Your task to perform on an android device: turn notification dots off Image 0: 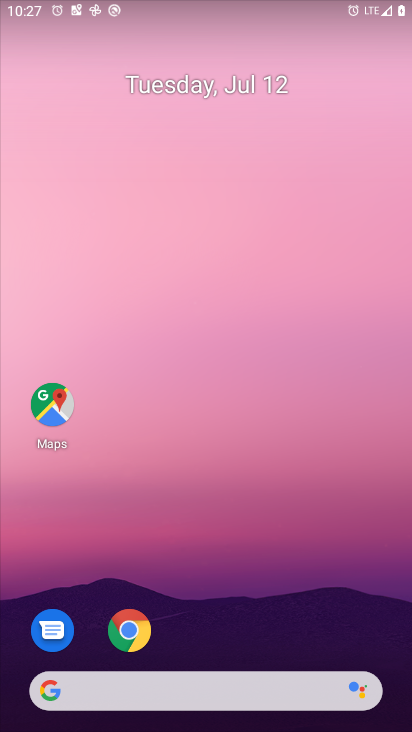
Step 0: press home button
Your task to perform on an android device: turn notification dots off Image 1: 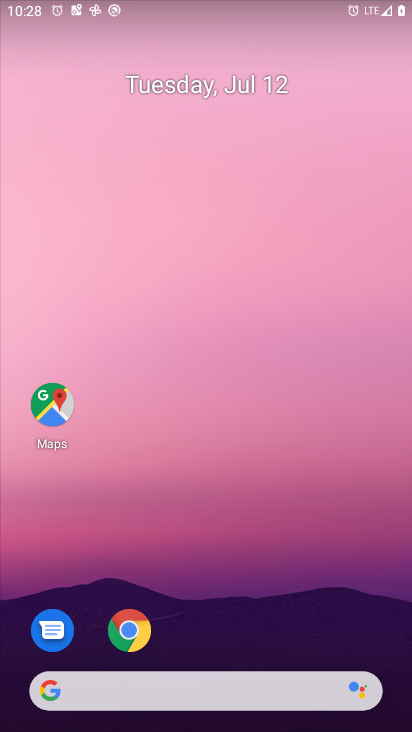
Step 1: press home button
Your task to perform on an android device: turn notification dots off Image 2: 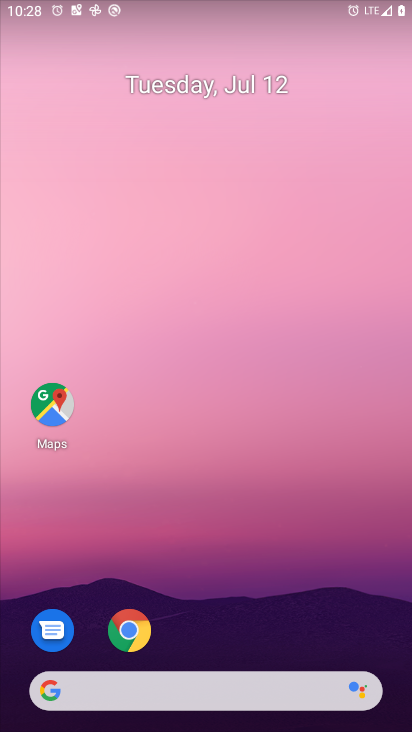
Step 2: drag from (223, 607) to (272, 169)
Your task to perform on an android device: turn notification dots off Image 3: 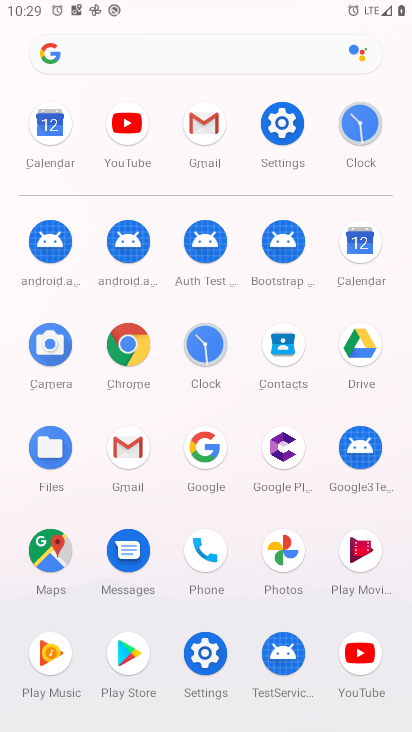
Step 3: press home button
Your task to perform on an android device: turn notification dots off Image 4: 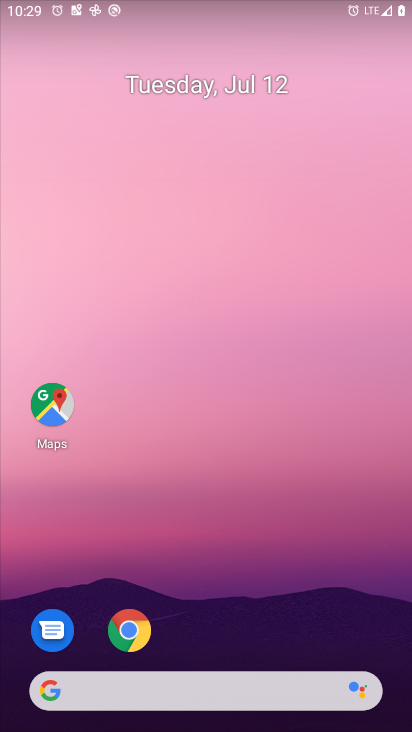
Step 4: drag from (296, 628) to (321, 58)
Your task to perform on an android device: turn notification dots off Image 5: 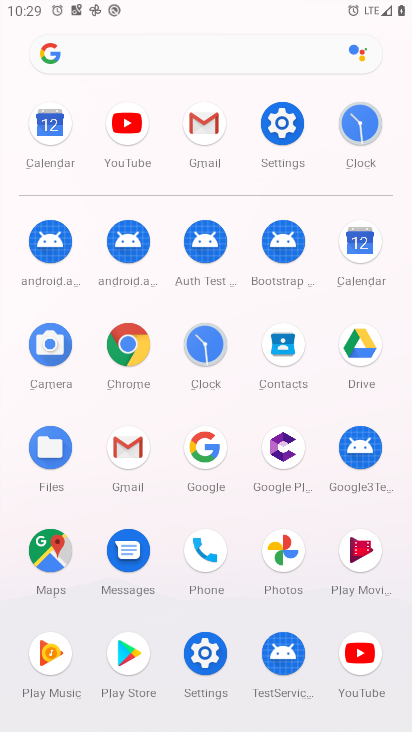
Step 5: click (286, 122)
Your task to perform on an android device: turn notification dots off Image 6: 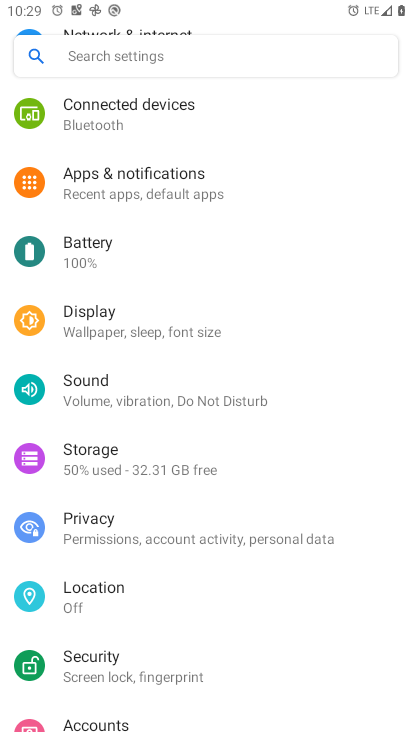
Step 6: click (185, 173)
Your task to perform on an android device: turn notification dots off Image 7: 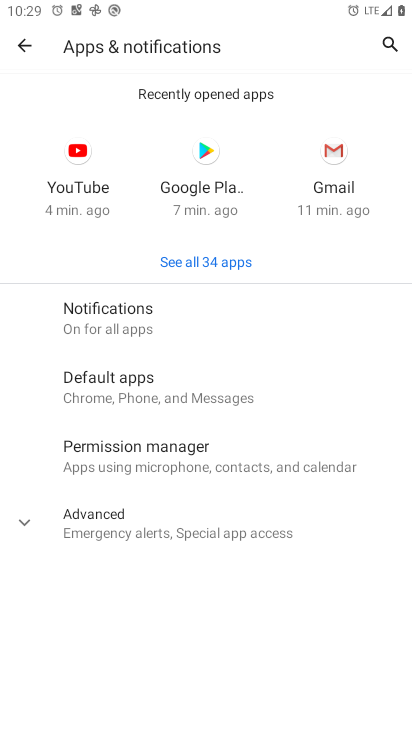
Step 7: click (25, 523)
Your task to perform on an android device: turn notification dots off Image 8: 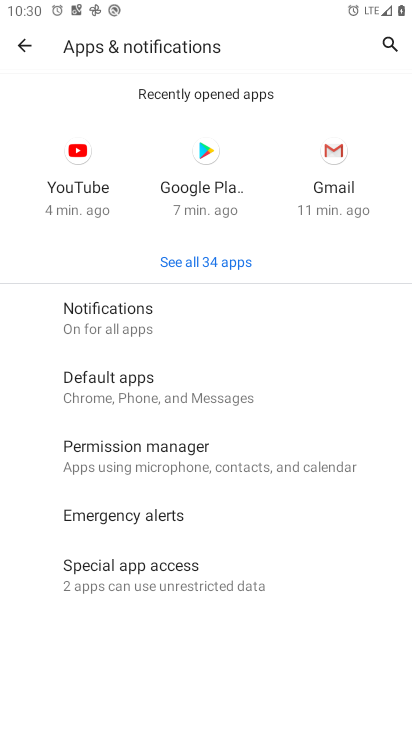
Step 8: drag from (309, 551) to (280, 289)
Your task to perform on an android device: turn notification dots off Image 9: 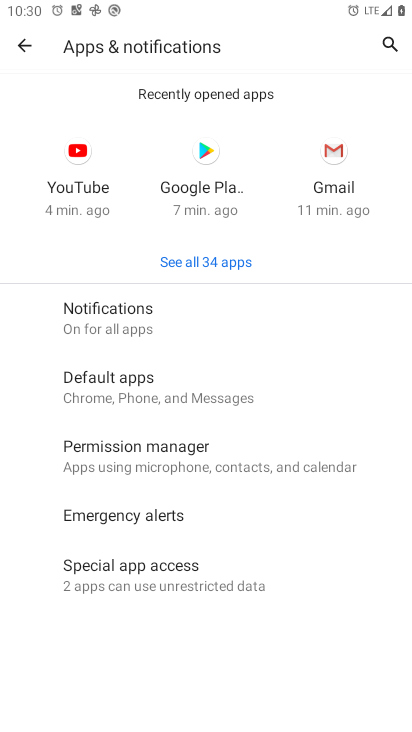
Step 9: click (109, 317)
Your task to perform on an android device: turn notification dots off Image 10: 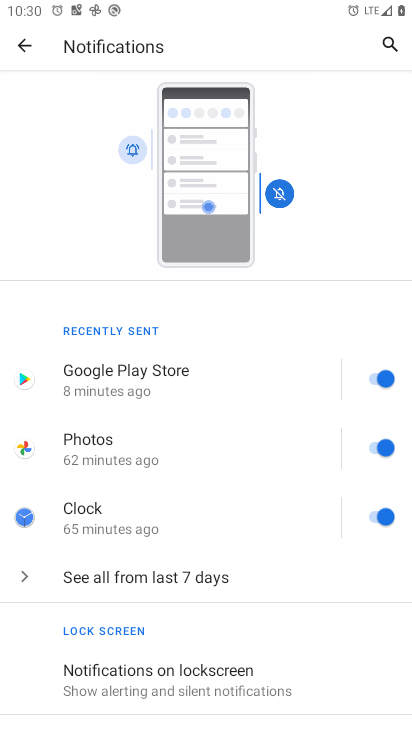
Step 10: drag from (244, 654) to (263, 275)
Your task to perform on an android device: turn notification dots off Image 11: 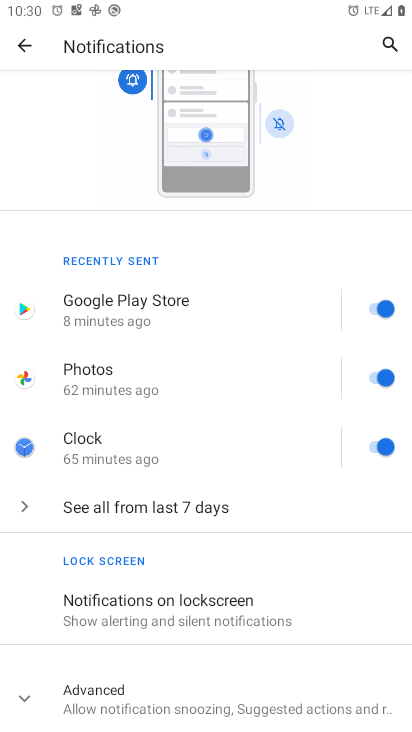
Step 11: click (28, 703)
Your task to perform on an android device: turn notification dots off Image 12: 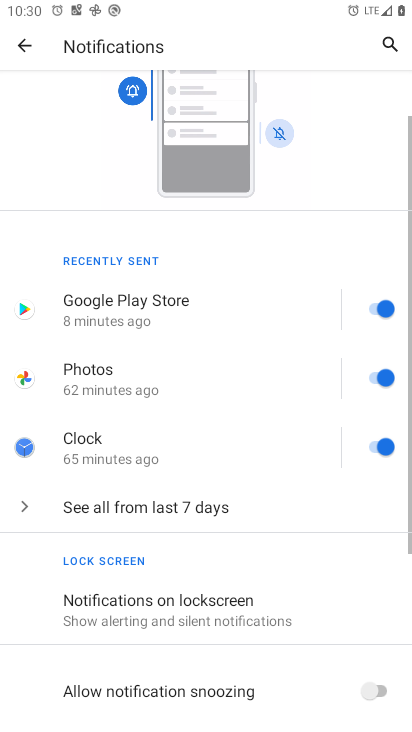
Step 12: task complete